Your task to perform on an android device: Open accessibility settings Image 0: 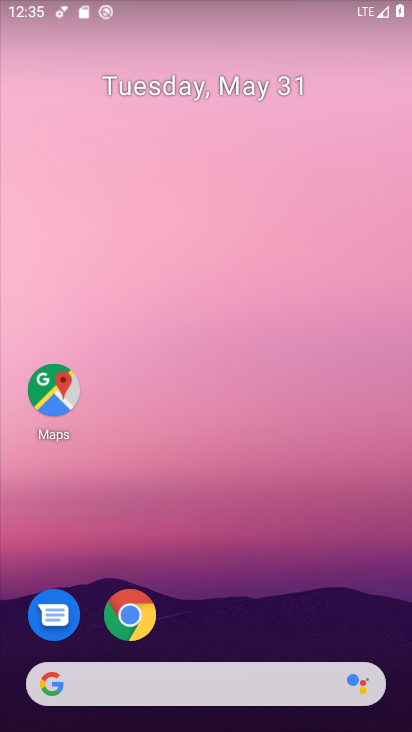
Step 0: drag from (240, 635) to (270, 4)
Your task to perform on an android device: Open accessibility settings Image 1: 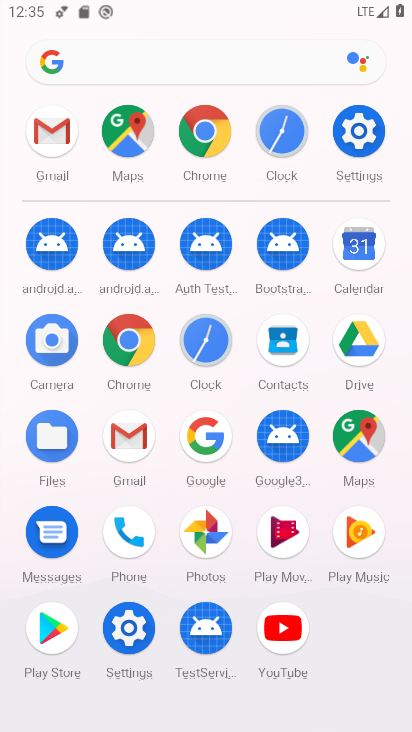
Step 1: click (135, 660)
Your task to perform on an android device: Open accessibility settings Image 2: 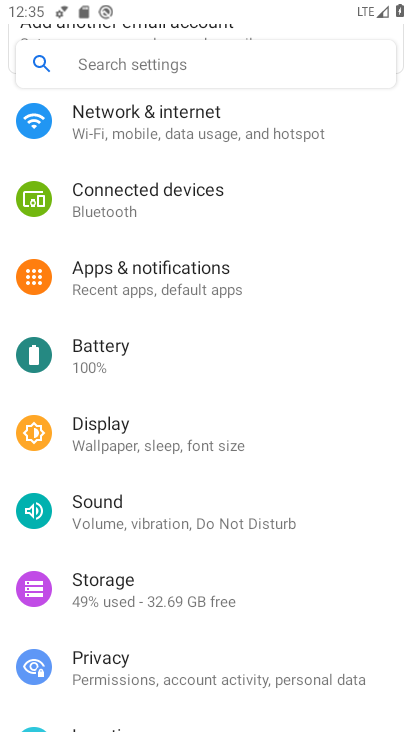
Step 2: drag from (157, 605) to (215, 320)
Your task to perform on an android device: Open accessibility settings Image 3: 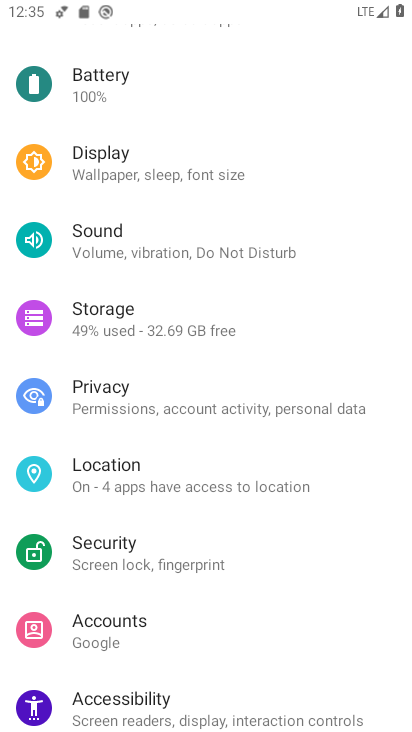
Step 3: click (141, 701)
Your task to perform on an android device: Open accessibility settings Image 4: 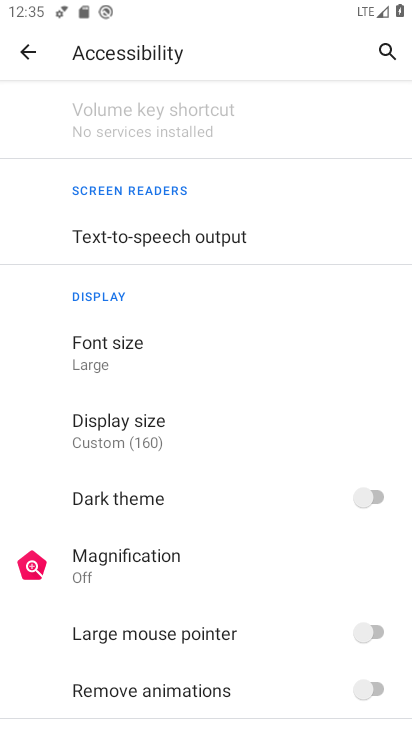
Step 4: task complete